Your task to perform on an android device: Show me popular games on the Play Store Image 0: 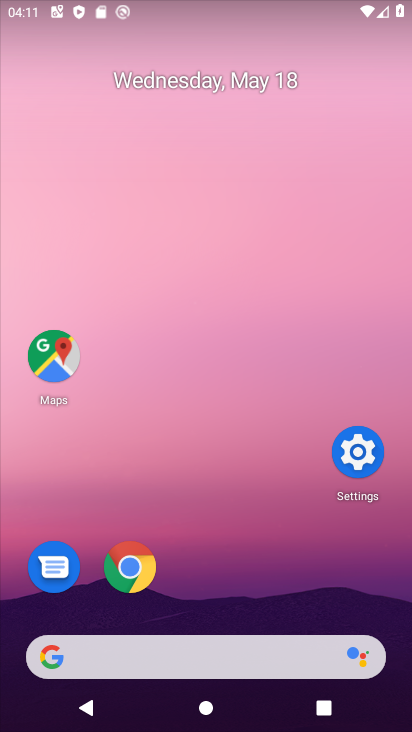
Step 0: drag from (210, 599) to (240, 72)
Your task to perform on an android device: Show me popular games on the Play Store Image 1: 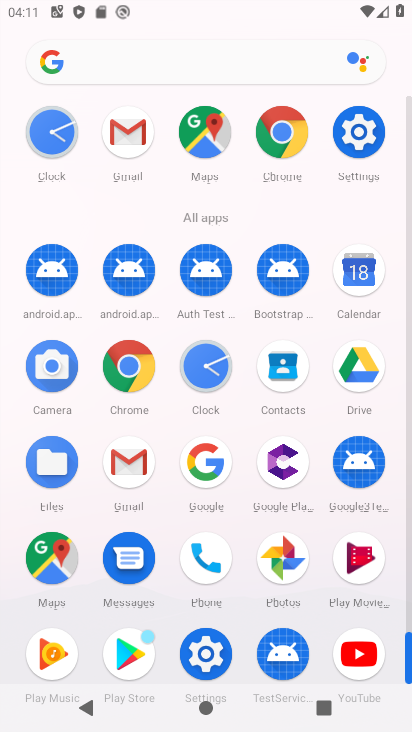
Step 1: click (133, 650)
Your task to perform on an android device: Show me popular games on the Play Store Image 2: 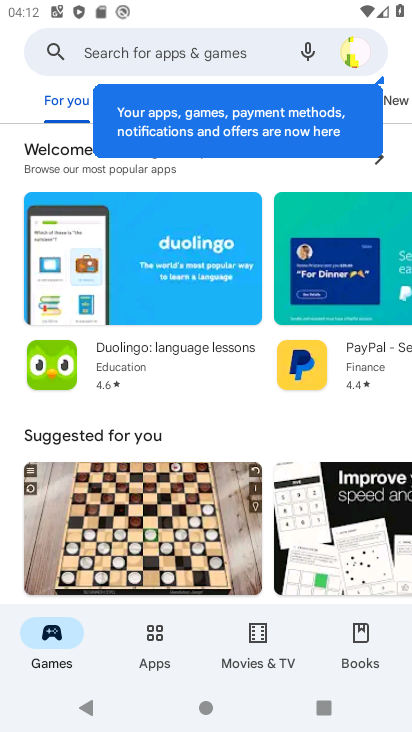
Step 2: click (147, 48)
Your task to perform on an android device: Show me popular games on the Play Store Image 3: 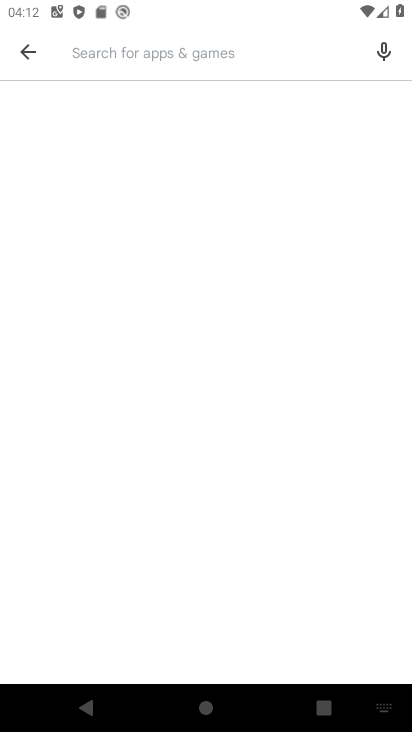
Step 3: type " popular games "
Your task to perform on an android device: Show me popular games on the Play Store Image 4: 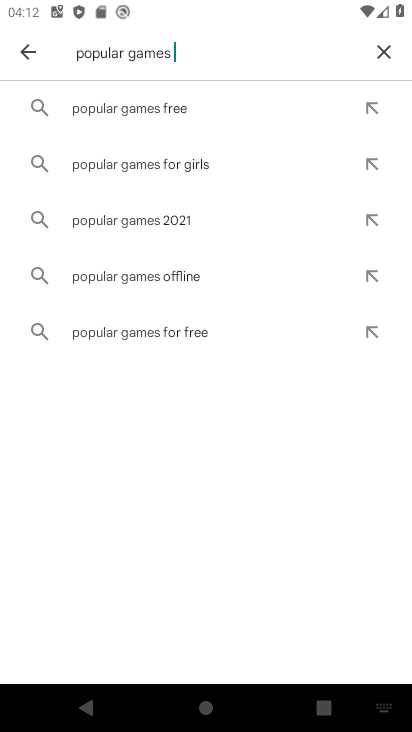
Step 4: click (135, 111)
Your task to perform on an android device: Show me popular games on the Play Store Image 5: 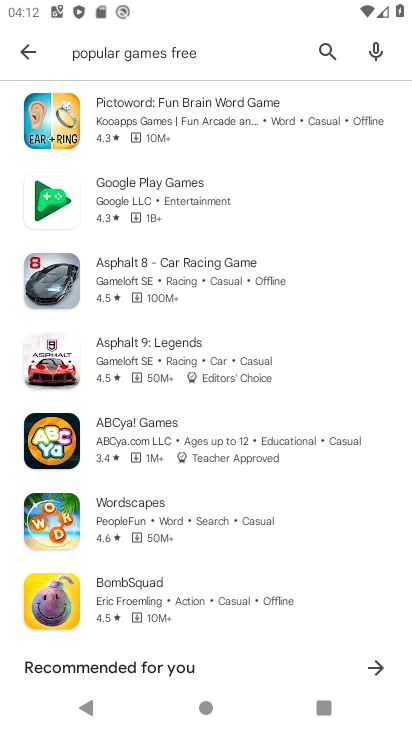
Step 5: task complete